Your task to perform on an android device: set an alarm Image 0: 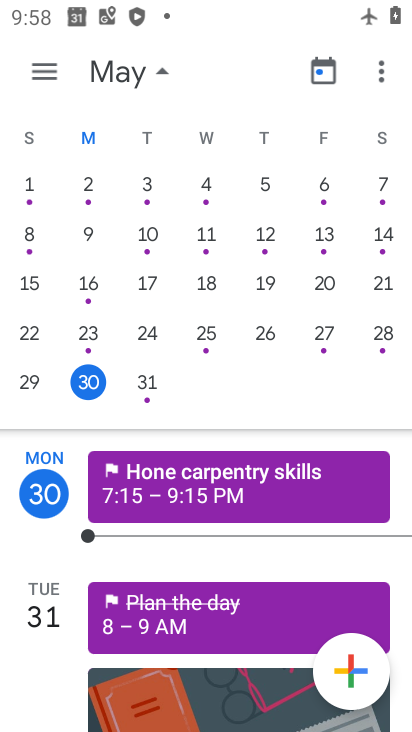
Step 0: press home button
Your task to perform on an android device: set an alarm Image 1: 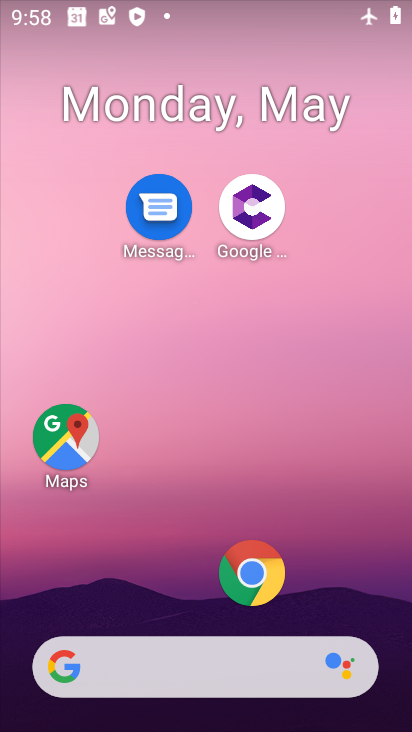
Step 1: drag from (170, 578) to (268, 70)
Your task to perform on an android device: set an alarm Image 2: 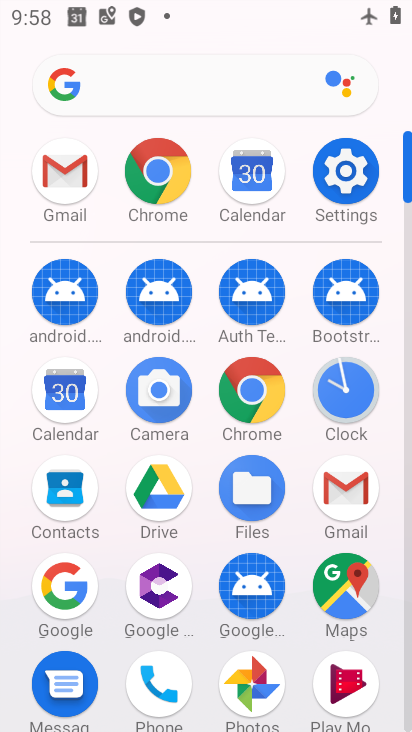
Step 2: click (355, 396)
Your task to perform on an android device: set an alarm Image 3: 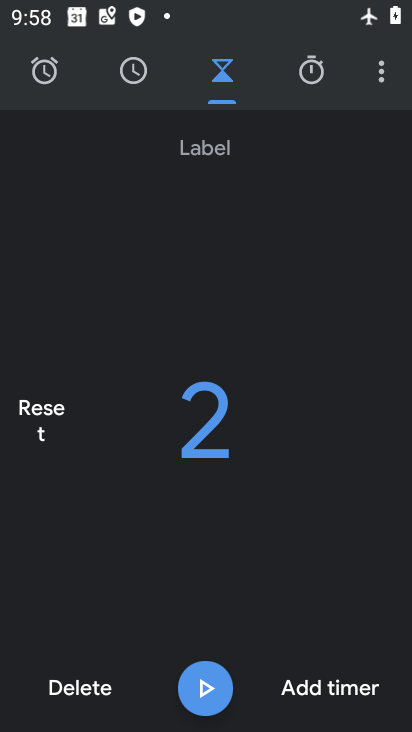
Step 3: click (48, 83)
Your task to perform on an android device: set an alarm Image 4: 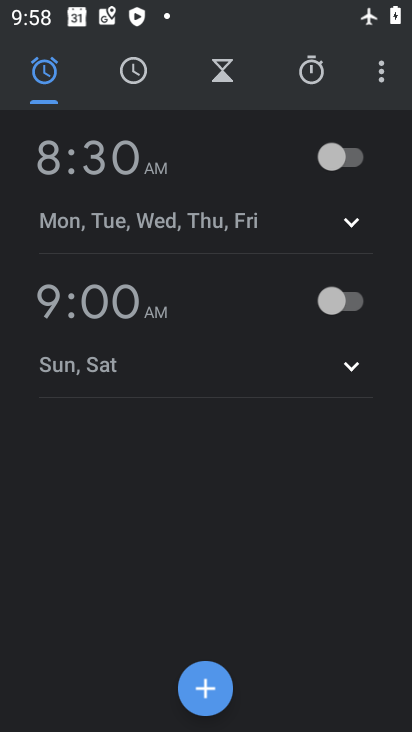
Step 4: click (211, 694)
Your task to perform on an android device: set an alarm Image 5: 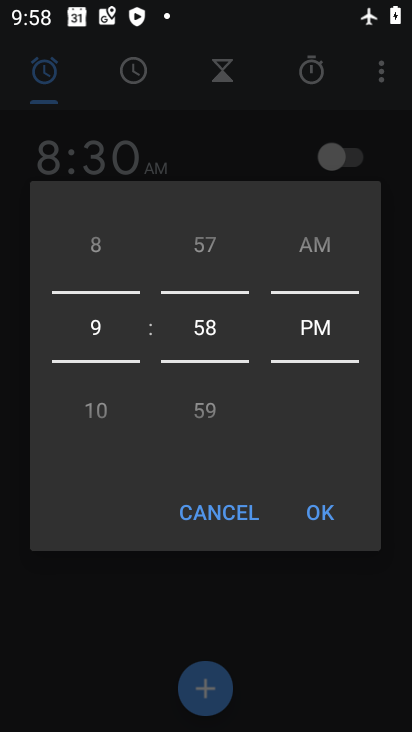
Step 5: click (317, 507)
Your task to perform on an android device: set an alarm Image 6: 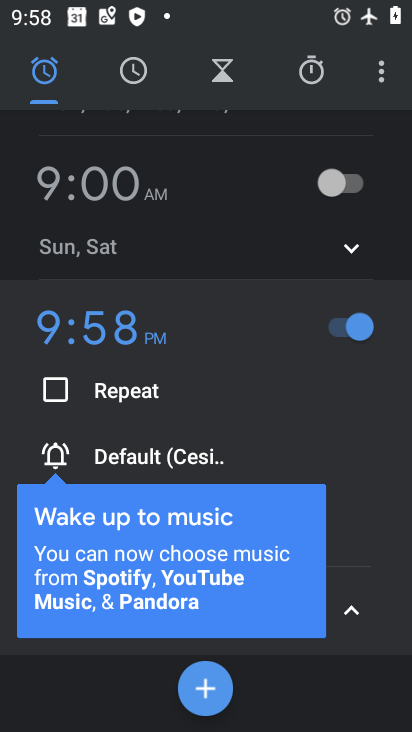
Step 6: task complete